Your task to perform on an android device: Open sound settings Image 0: 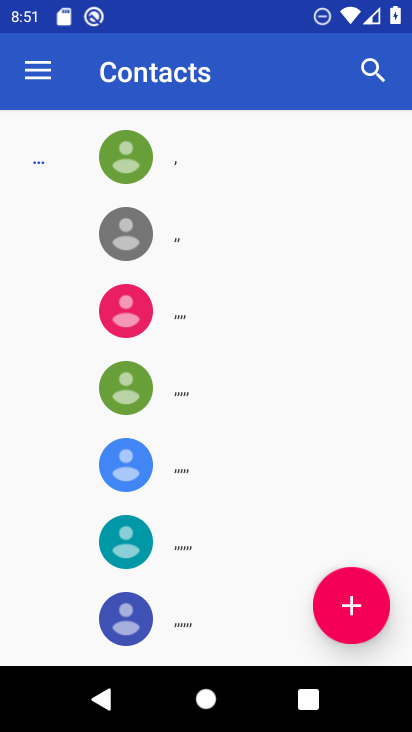
Step 0: press home button
Your task to perform on an android device: Open sound settings Image 1: 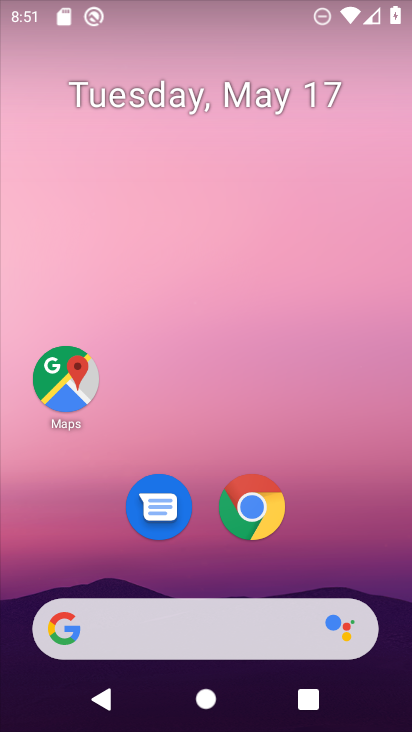
Step 1: drag from (370, 601) to (404, 27)
Your task to perform on an android device: Open sound settings Image 2: 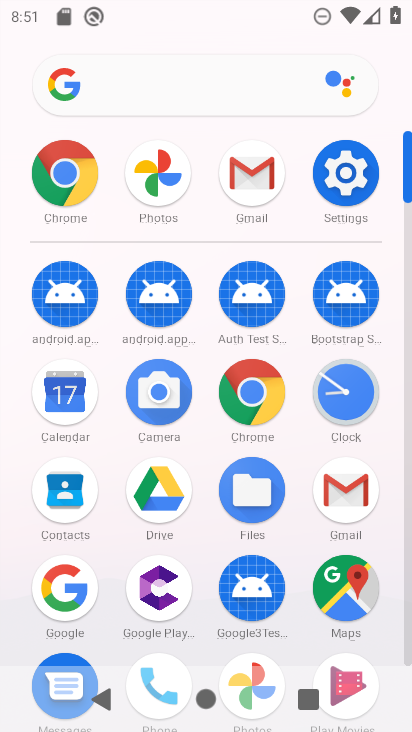
Step 2: click (351, 179)
Your task to perform on an android device: Open sound settings Image 3: 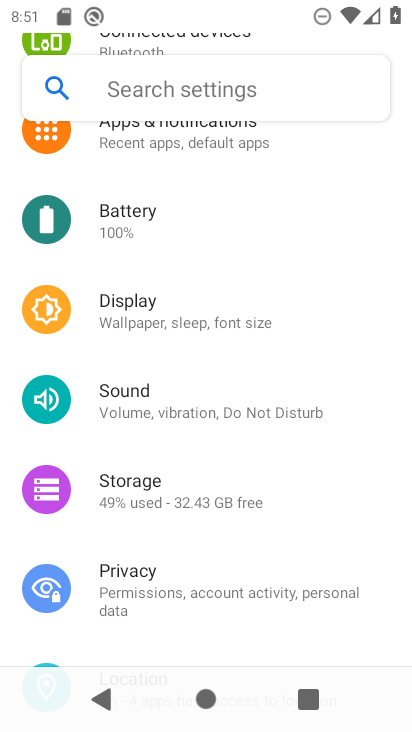
Step 3: click (136, 415)
Your task to perform on an android device: Open sound settings Image 4: 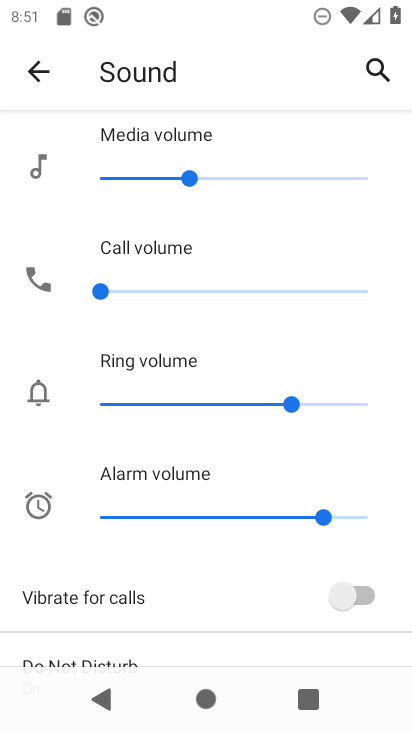
Step 4: task complete